Your task to perform on an android device: Is it going to rain this weekend? Image 0: 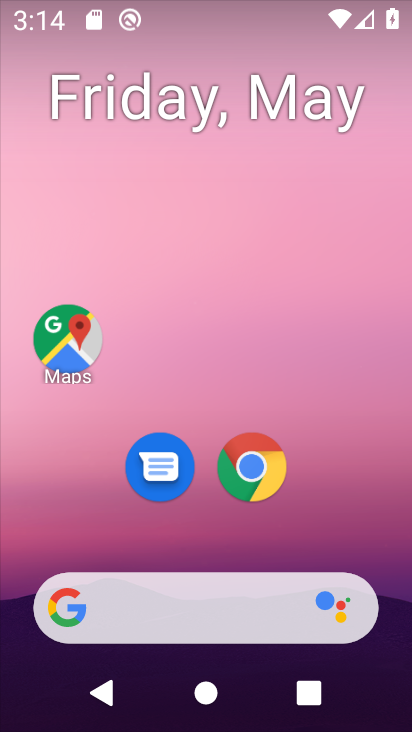
Step 0: drag from (330, 529) to (236, 81)
Your task to perform on an android device: Is it going to rain this weekend? Image 1: 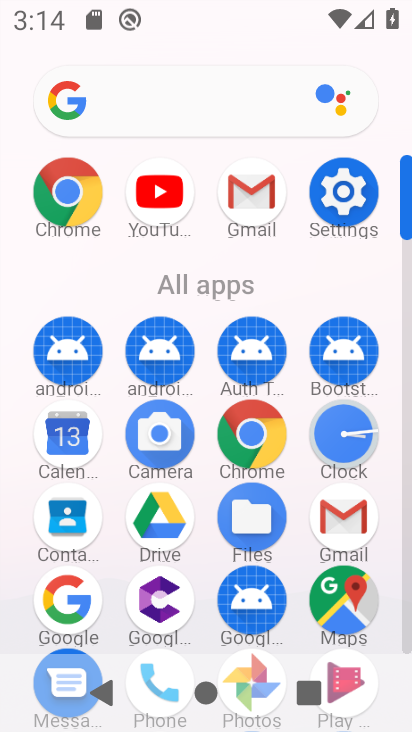
Step 1: click (75, 602)
Your task to perform on an android device: Is it going to rain this weekend? Image 2: 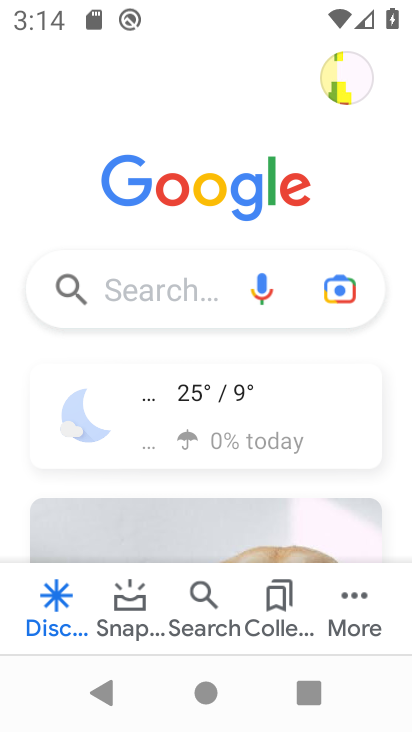
Step 2: click (216, 396)
Your task to perform on an android device: Is it going to rain this weekend? Image 3: 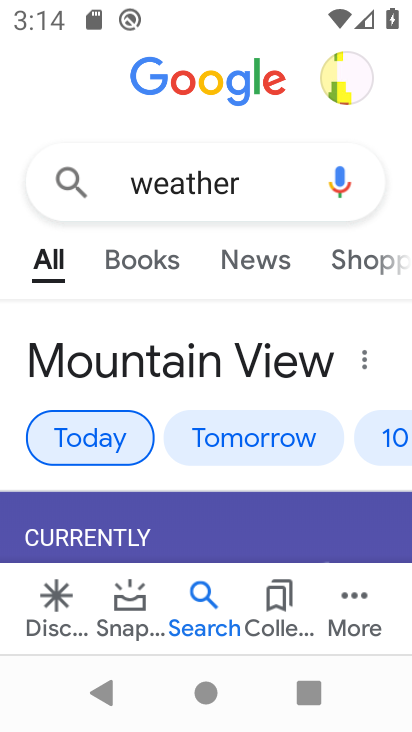
Step 3: task complete